Your task to perform on an android device: create a new album in the google photos Image 0: 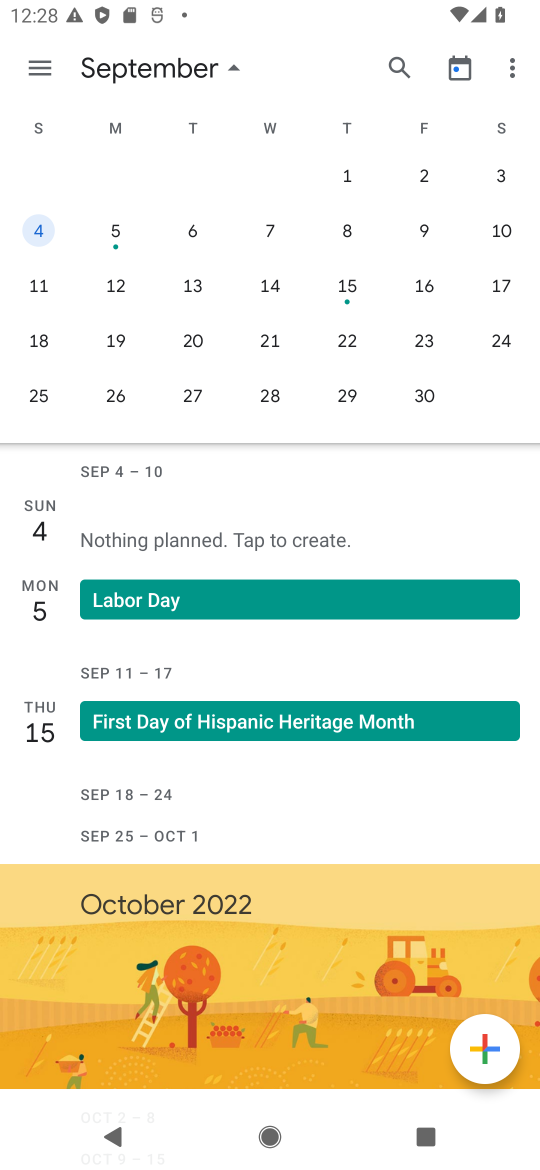
Step 0: press home button
Your task to perform on an android device: create a new album in the google photos Image 1: 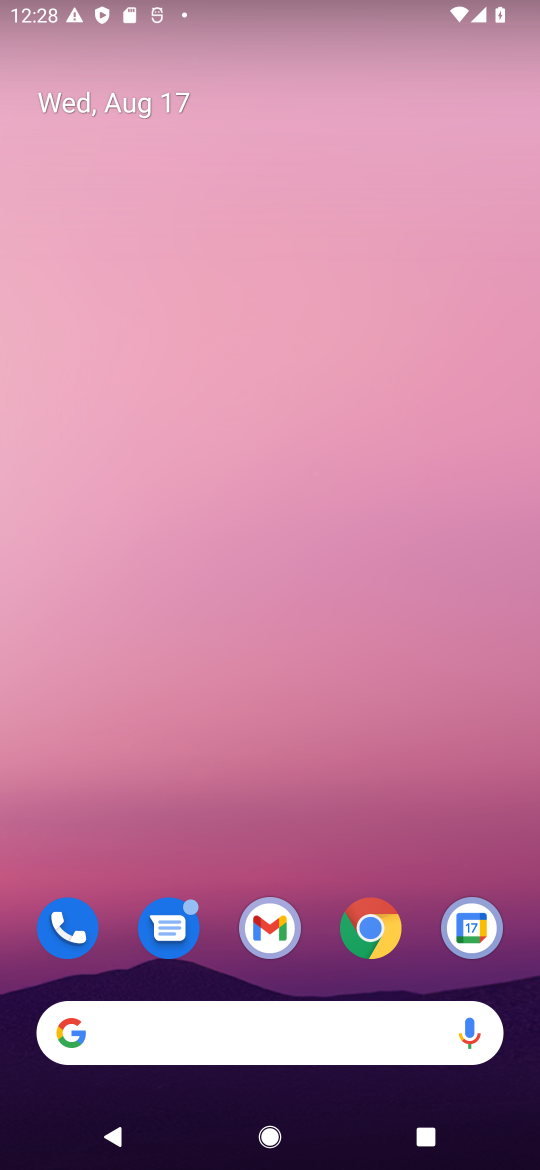
Step 1: drag from (343, 884) to (355, 240)
Your task to perform on an android device: create a new album in the google photos Image 2: 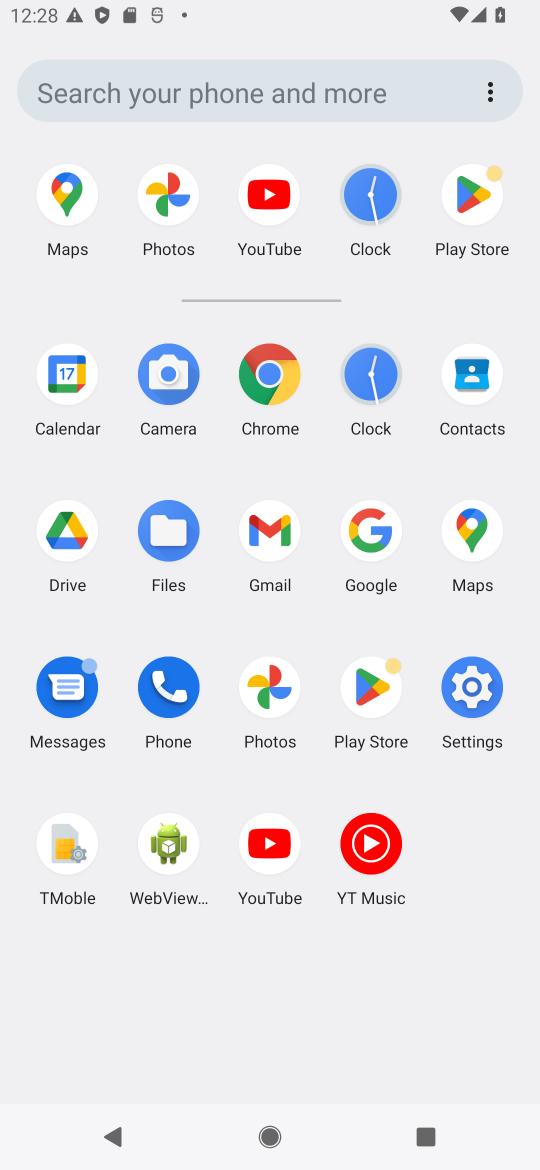
Step 2: click (268, 690)
Your task to perform on an android device: create a new album in the google photos Image 3: 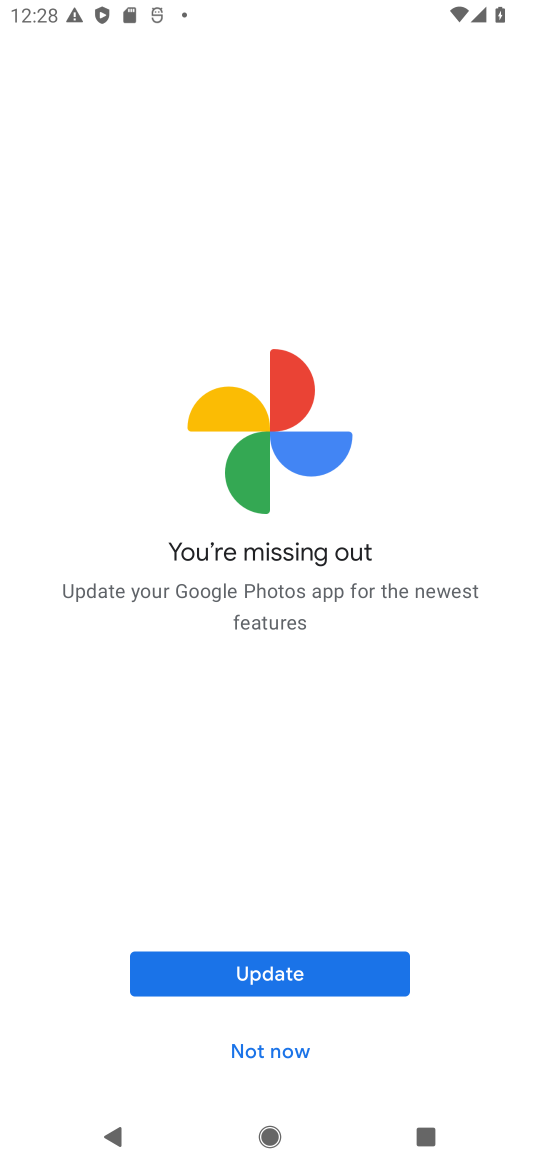
Step 3: click (280, 1044)
Your task to perform on an android device: create a new album in the google photos Image 4: 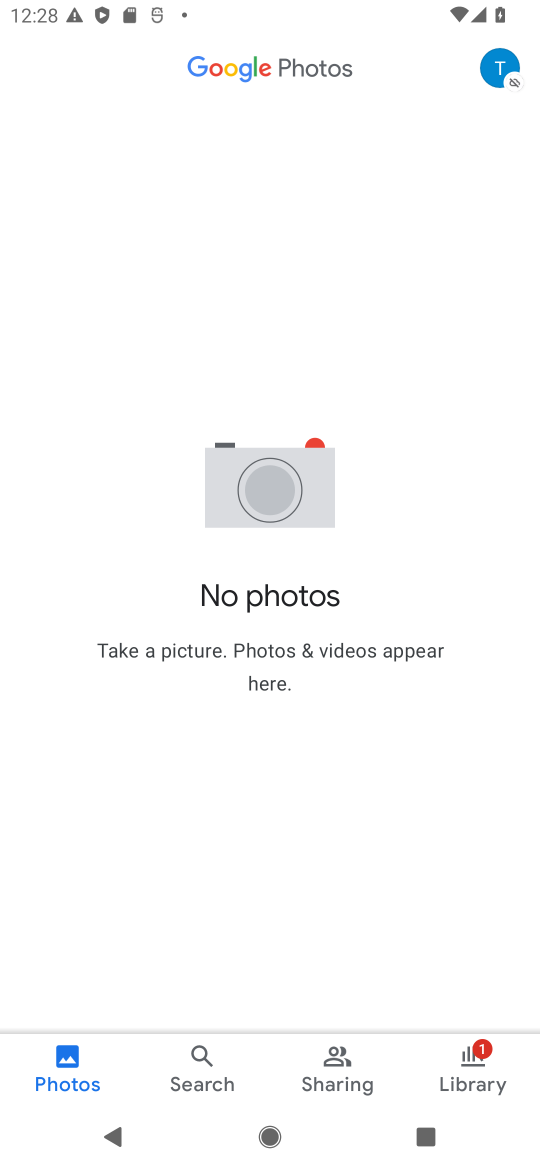
Step 4: click (493, 82)
Your task to perform on an android device: create a new album in the google photos Image 5: 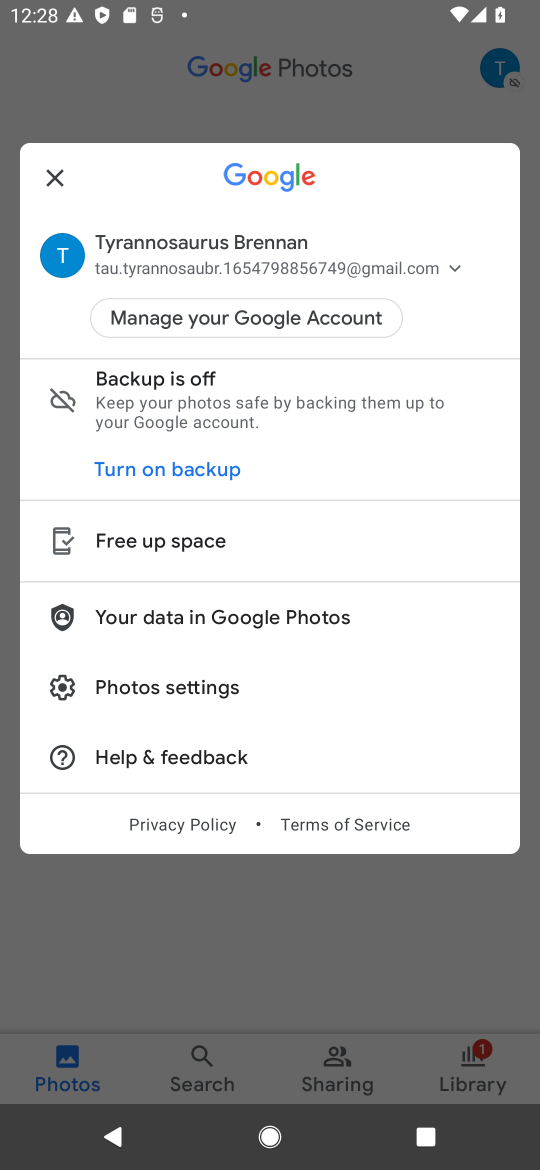
Step 5: click (117, 259)
Your task to perform on an android device: create a new album in the google photos Image 6: 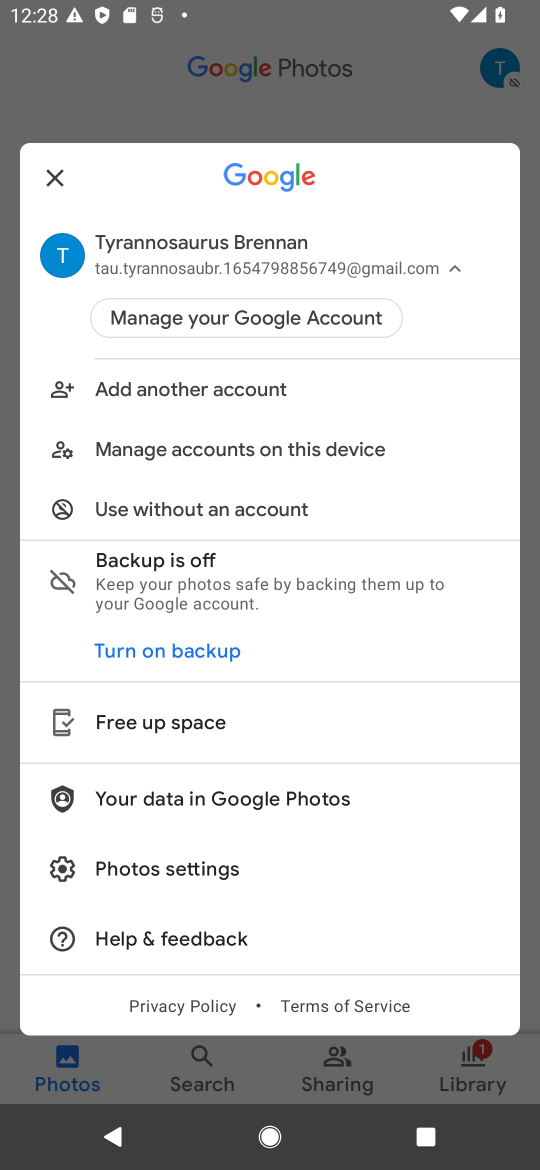
Step 6: click (56, 182)
Your task to perform on an android device: create a new album in the google photos Image 7: 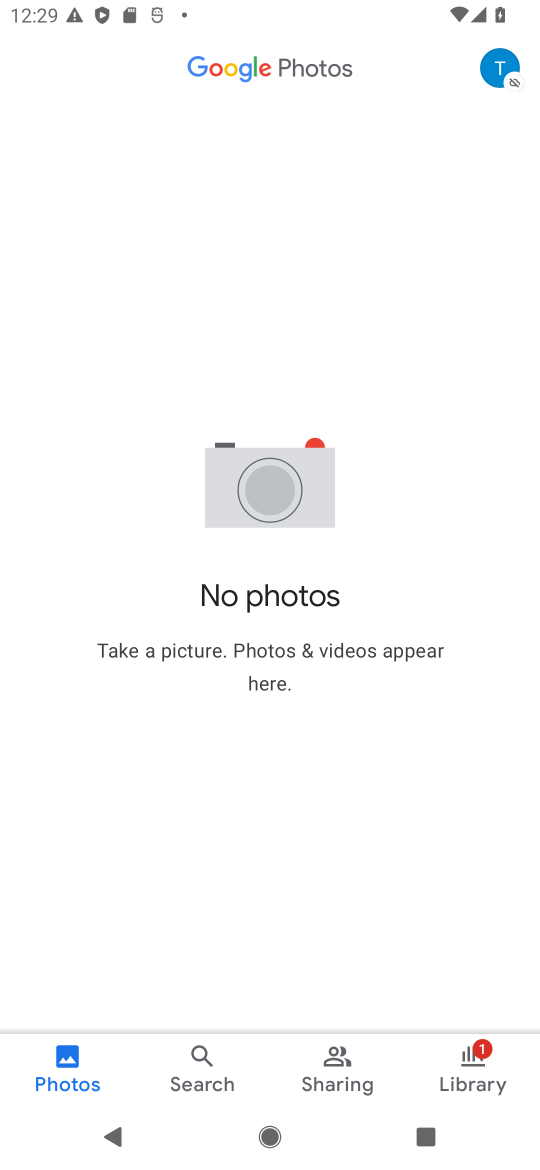
Step 7: task complete